Your task to perform on an android device: Go to Wikipedia Image 0: 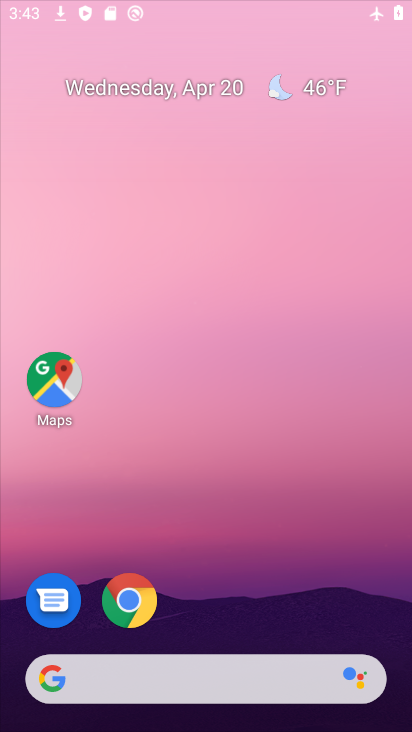
Step 0: drag from (224, 624) to (238, 33)
Your task to perform on an android device: Go to Wikipedia Image 1: 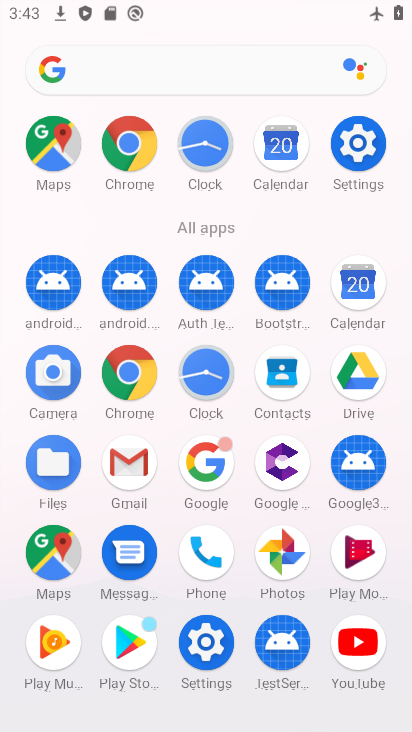
Step 1: click (136, 138)
Your task to perform on an android device: Go to Wikipedia Image 2: 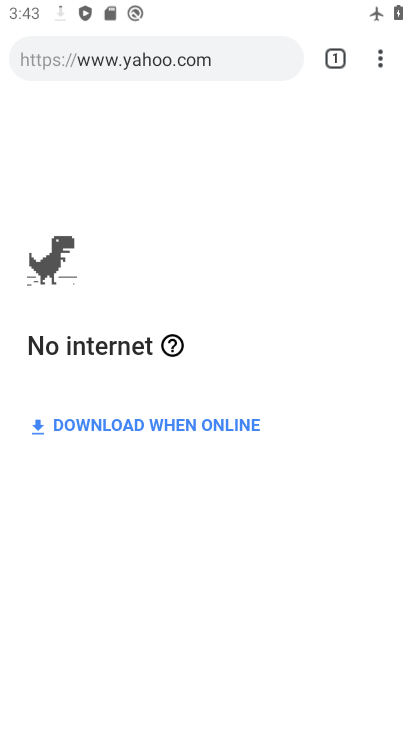
Step 2: task complete